Your task to perform on an android device: check storage Image 0: 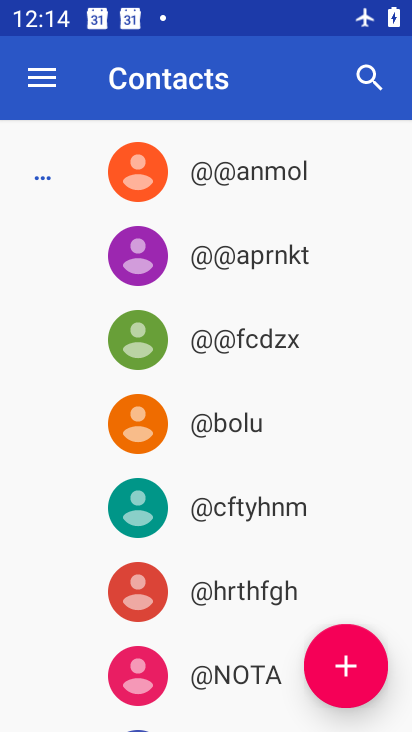
Step 0: press home button
Your task to perform on an android device: check storage Image 1: 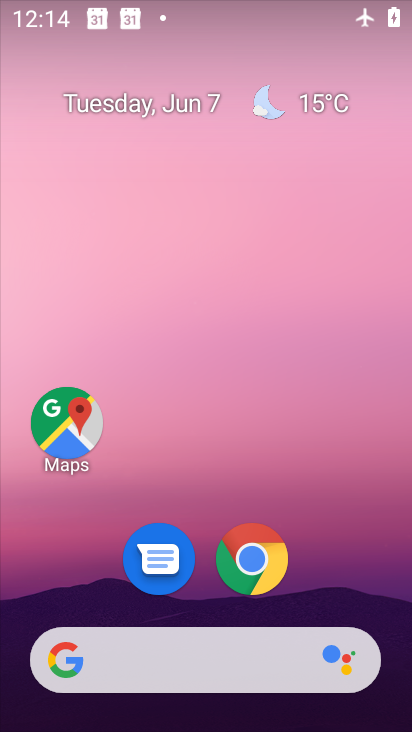
Step 1: drag from (379, 602) to (336, 25)
Your task to perform on an android device: check storage Image 2: 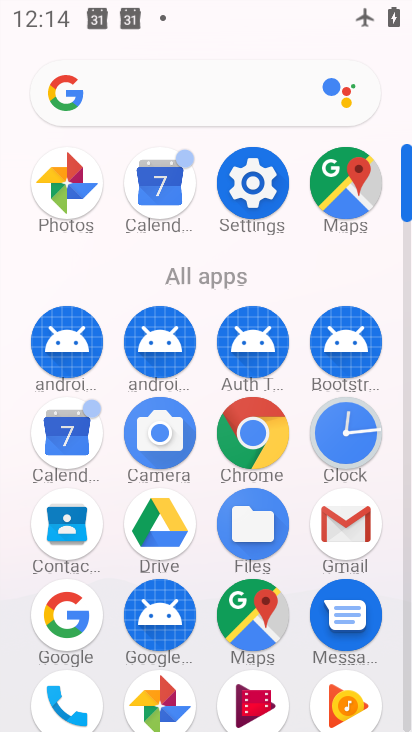
Step 2: click (408, 699)
Your task to perform on an android device: check storage Image 3: 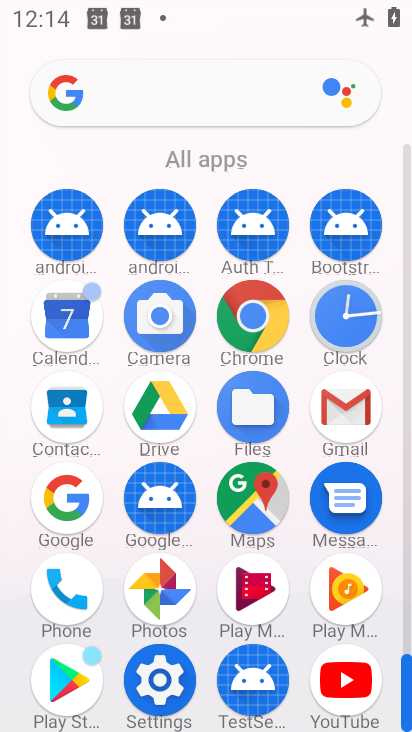
Step 3: click (160, 680)
Your task to perform on an android device: check storage Image 4: 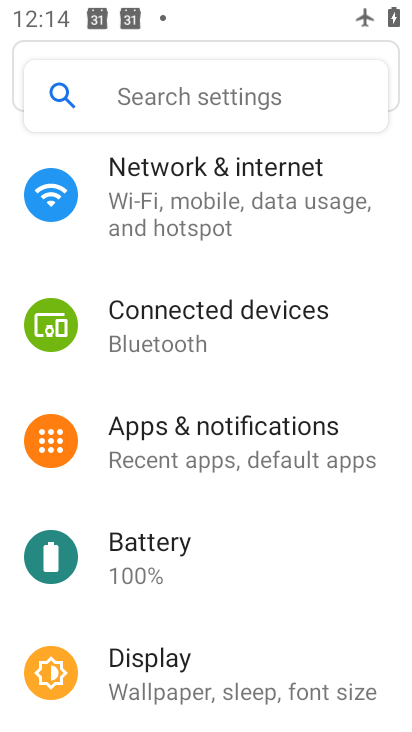
Step 4: drag from (380, 634) to (356, 171)
Your task to perform on an android device: check storage Image 5: 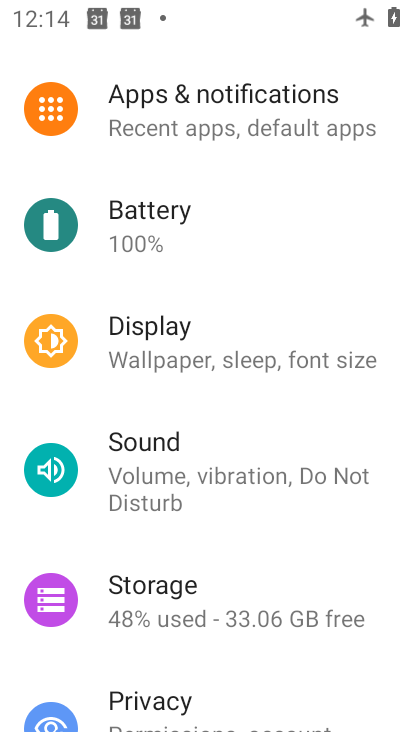
Step 5: click (147, 599)
Your task to perform on an android device: check storage Image 6: 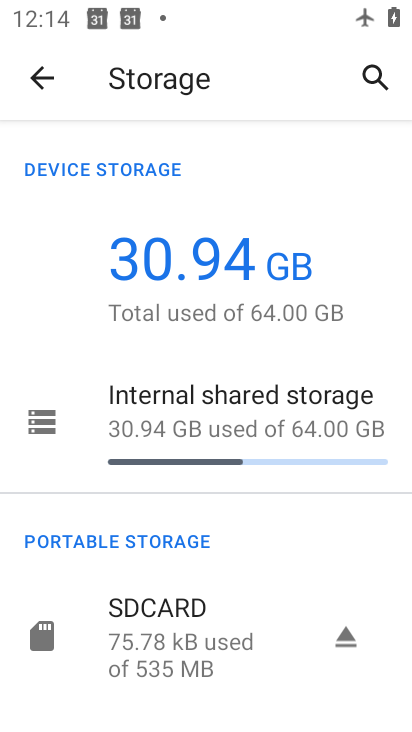
Step 6: task complete